Your task to perform on an android device: turn on data saver in the chrome app Image 0: 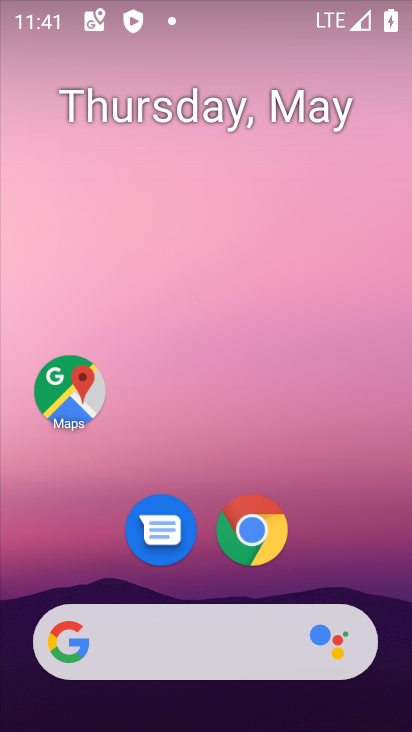
Step 0: click (242, 527)
Your task to perform on an android device: turn on data saver in the chrome app Image 1: 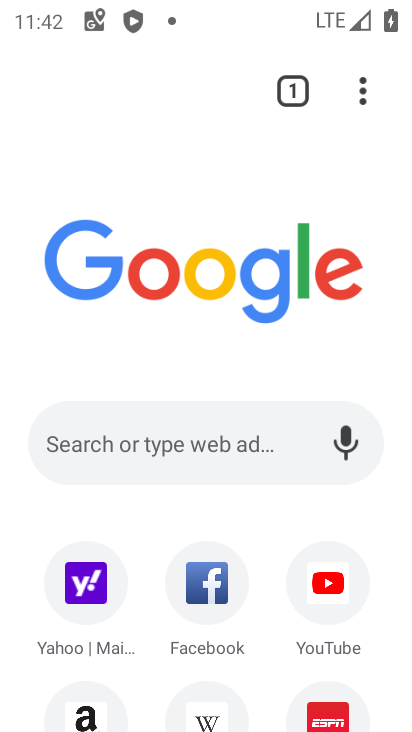
Step 1: click (359, 91)
Your task to perform on an android device: turn on data saver in the chrome app Image 2: 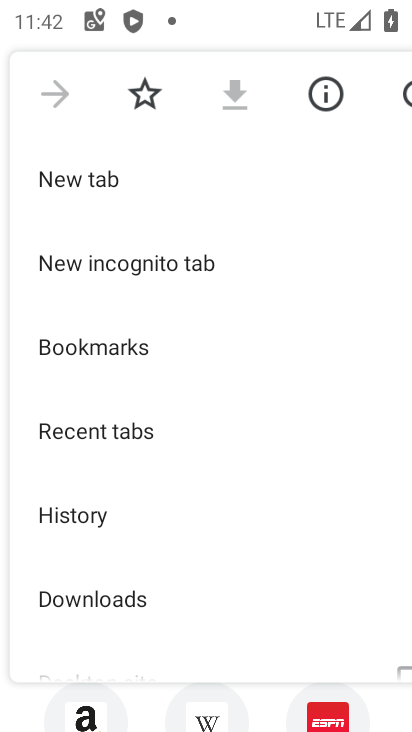
Step 2: drag from (142, 552) to (147, 86)
Your task to perform on an android device: turn on data saver in the chrome app Image 3: 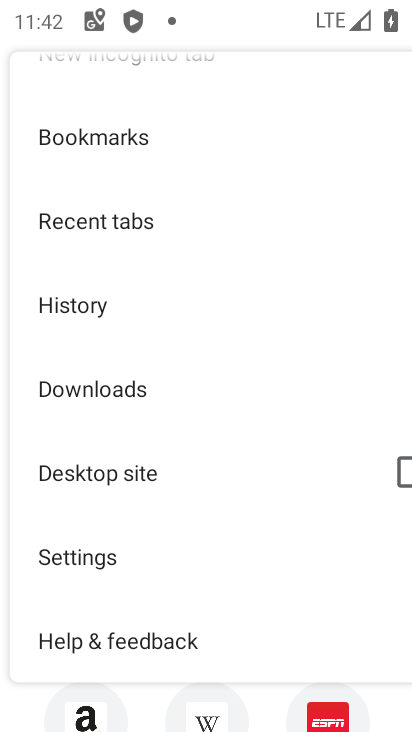
Step 3: click (103, 553)
Your task to perform on an android device: turn on data saver in the chrome app Image 4: 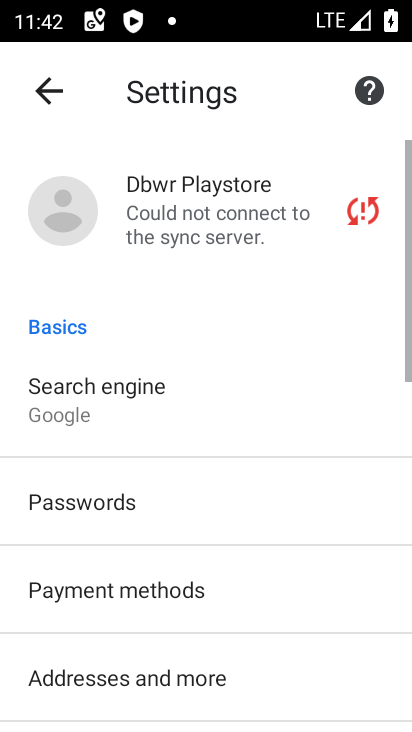
Step 4: drag from (270, 653) to (274, 63)
Your task to perform on an android device: turn on data saver in the chrome app Image 5: 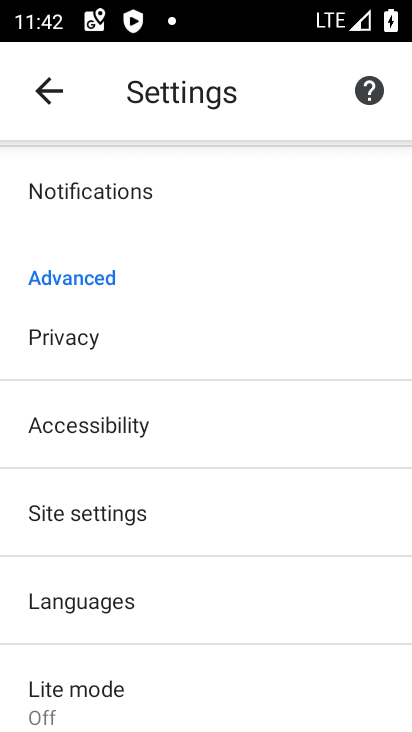
Step 5: click (143, 680)
Your task to perform on an android device: turn on data saver in the chrome app Image 6: 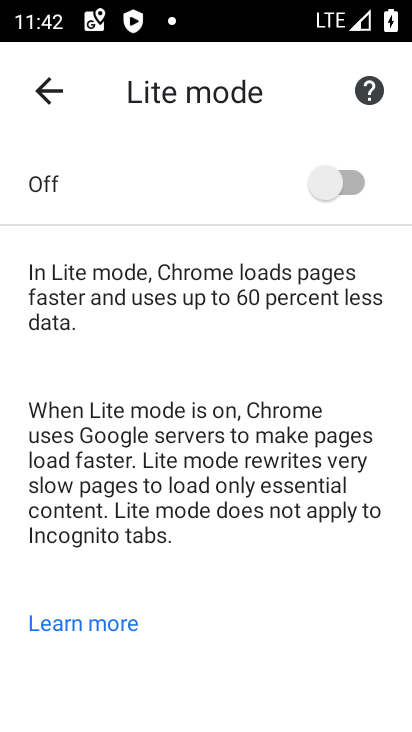
Step 6: click (345, 156)
Your task to perform on an android device: turn on data saver in the chrome app Image 7: 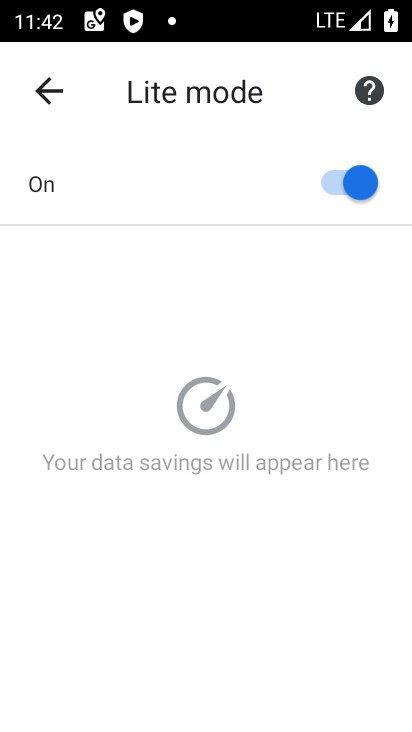
Step 7: task complete